Your task to perform on an android device: delete a single message in the gmail app Image 0: 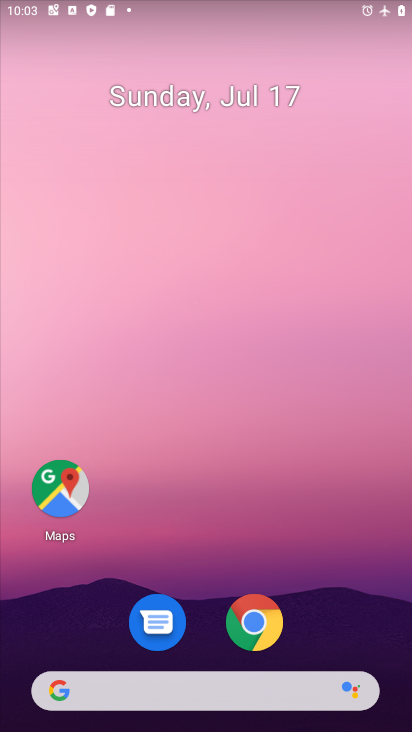
Step 0: drag from (263, 727) to (346, 34)
Your task to perform on an android device: delete a single message in the gmail app Image 1: 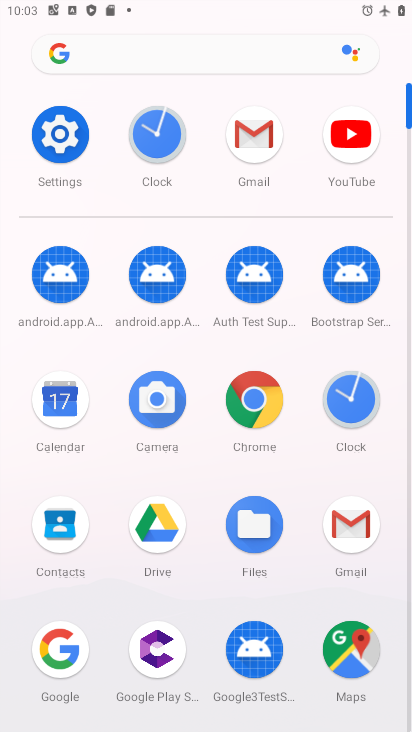
Step 1: click (255, 128)
Your task to perform on an android device: delete a single message in the gmail app Image 2: 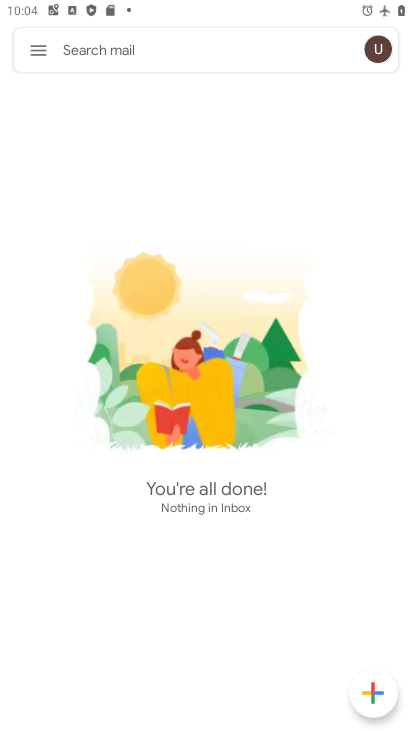
Step 2: task complete